Your task to perform on an android device: open chrome privacy settings Image 0: 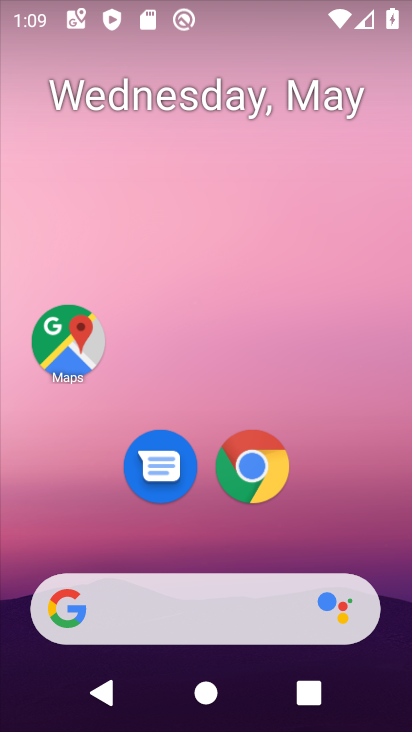
Step 0: click (252, 465)
Your task to perform on an android device: open chrome privacy settings Image 1: 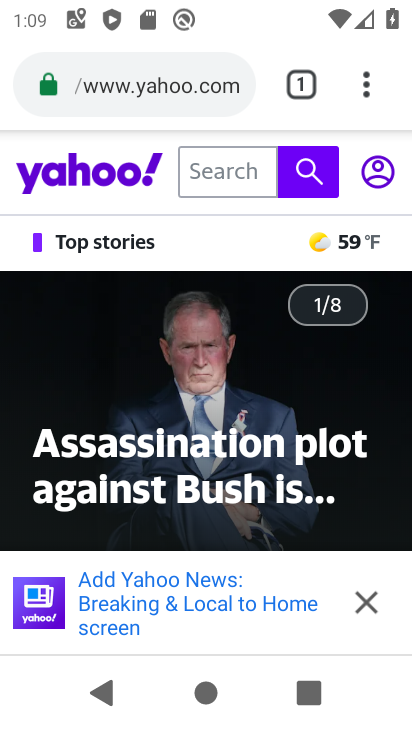
Step 1: click (354, 84)
Your task to perform on an android device: open chrome privacy settings Image 2: 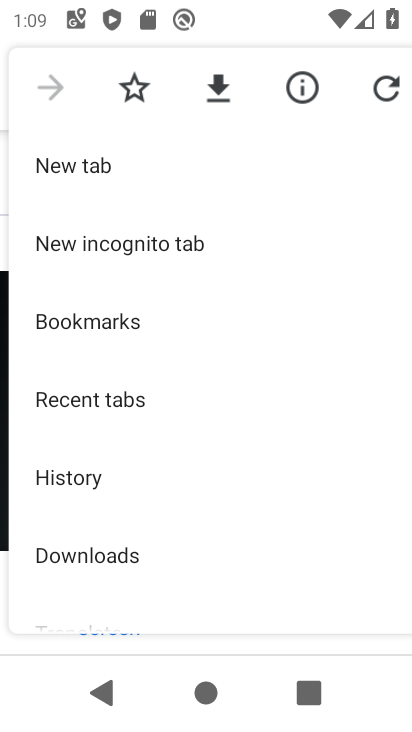
Step 2: drag from (267, 546) to (206, 111)
Your task to perform on an android device: open chrome privacy settings Image 3: 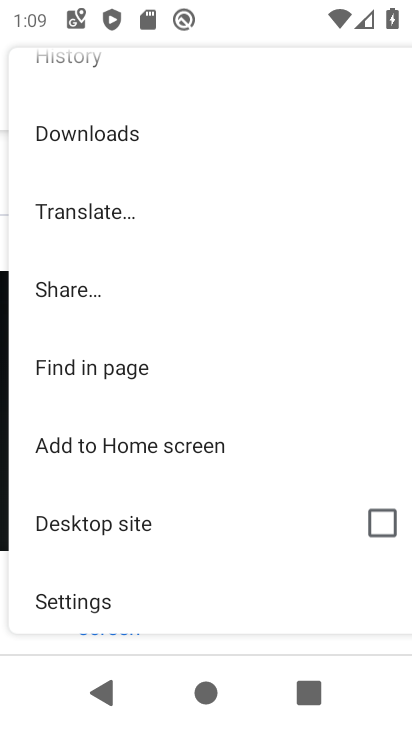
Step 3: click (117, 603)
Your task to perform on an android device: open chrome privacy settings Image 4: 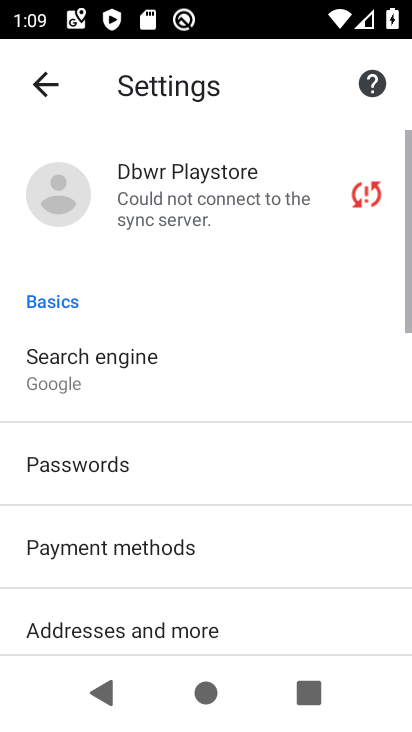
Step 4: drag from (192, 495) to (173, 112)
Your task to perform on an android device: open chrome privacy settings Image 5: 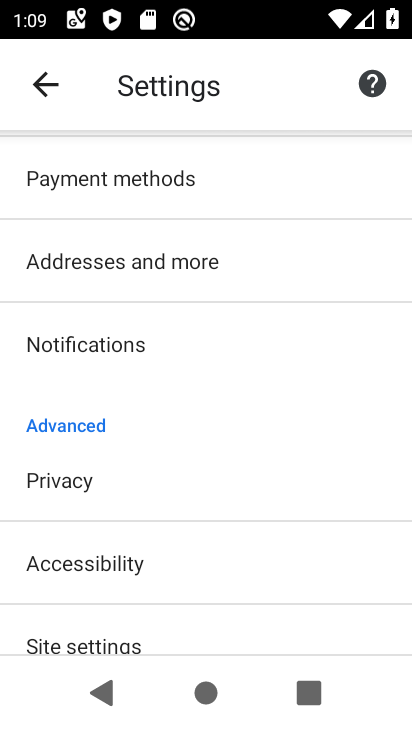
Step 5: click (127, 476)
Your task to perform on an android device: open chrome privacy settings Image 6: 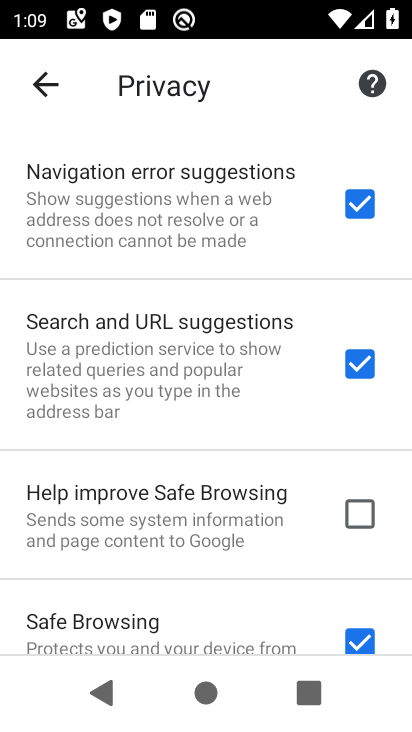
Step 6: task complete